Your task to perform on an android device: Open settings Image 0: 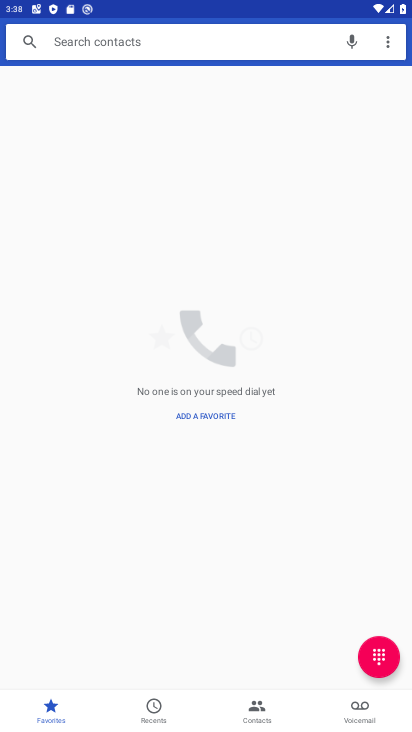
Step 0: press home button
Your task to perform on an android device: Open settings Image 1: 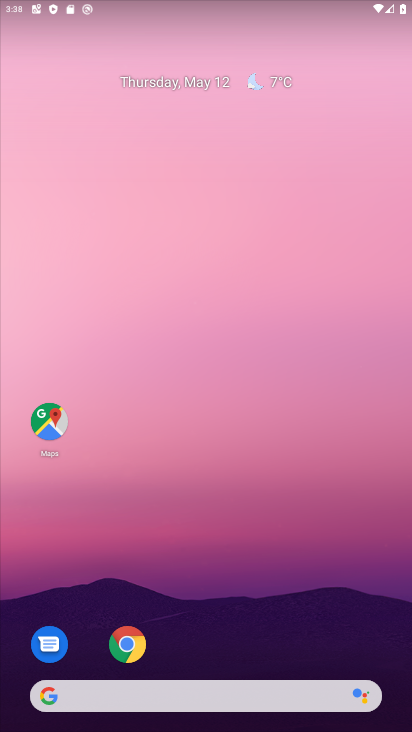
Step 1: drag from (222, 645) to (248, 89)
Your task to perform on an android device: Open settings Image 2: 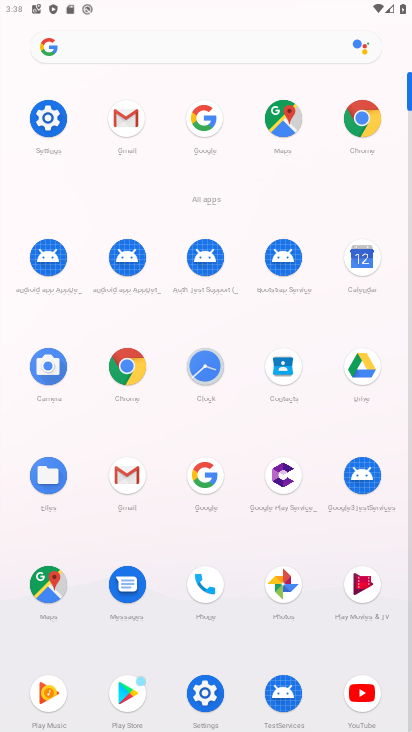
Step 2: click (46, 116)
Your task to perform on an android device: Open settings Image 3: 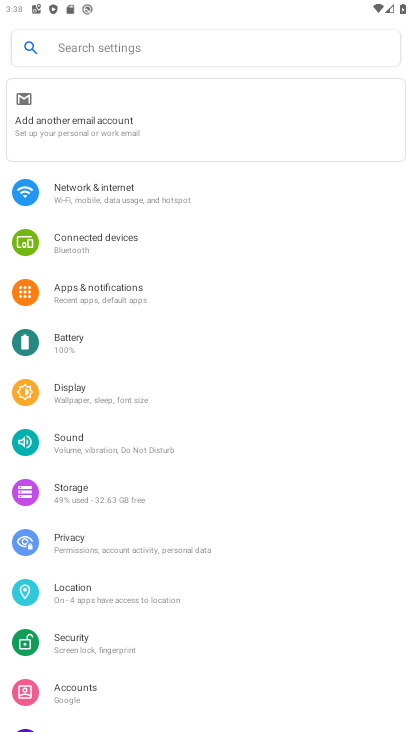
Step 3: task complete